Your task to perform on an android device: find which apps use the phone's location Image 0: 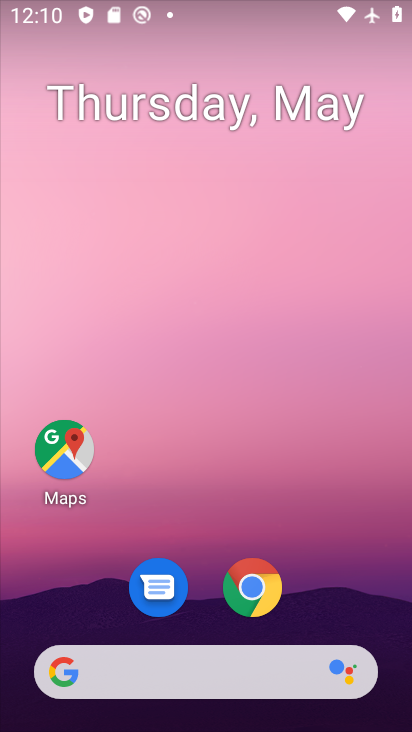
Step 0: press home button
Your task to perform on an android device: find which apps use the phone's location Image 1: 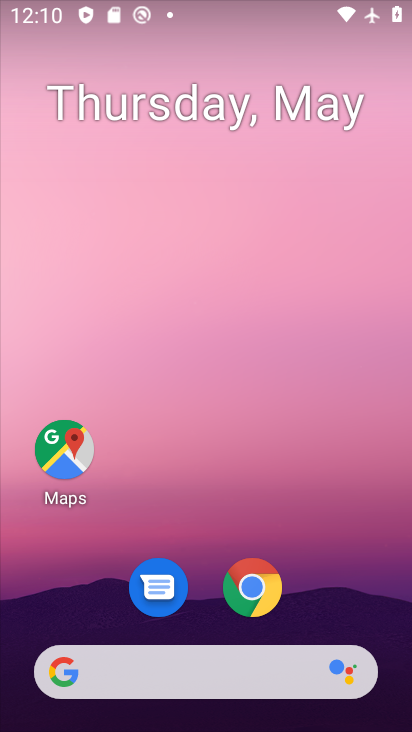
Step 1: drag from (158, 669) to (272, 28)
Your task to perform on an android device: find which apps use the phone's location Image 2: 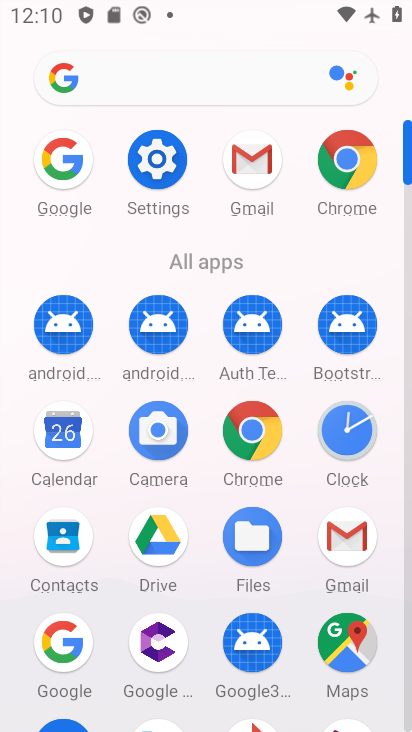
Step 2: click (175, 166)
Your task to perform on an android device: find which apps use the phone's location Image 3: 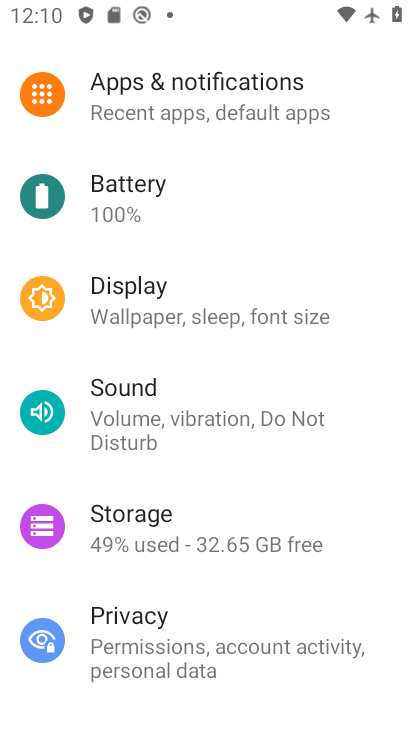
Step 3: click (159, 168)
Your task to perform on an android device: find which apps use the phone's location Image 4: 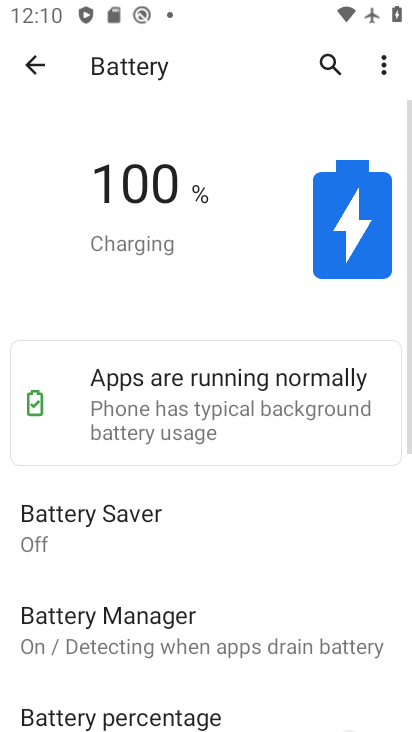
Step 4: drag from (243, 594) to (287, 347)
Your task to perform on an android device: find which apps use the phone's location Image 5: 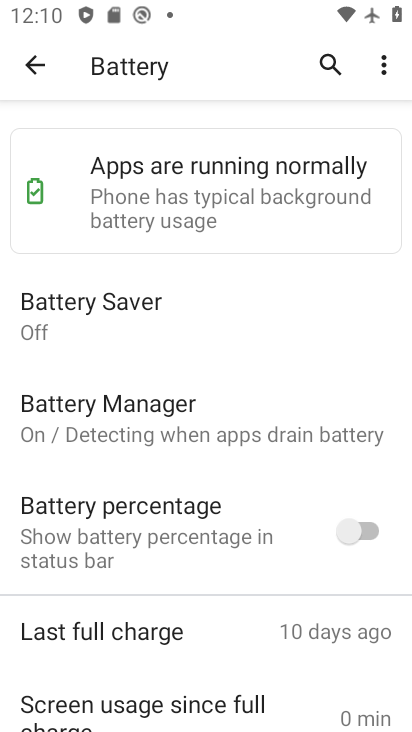
Step 5: press back button
Your task to perform on an android device: find which apps use the phone's location Image 6: 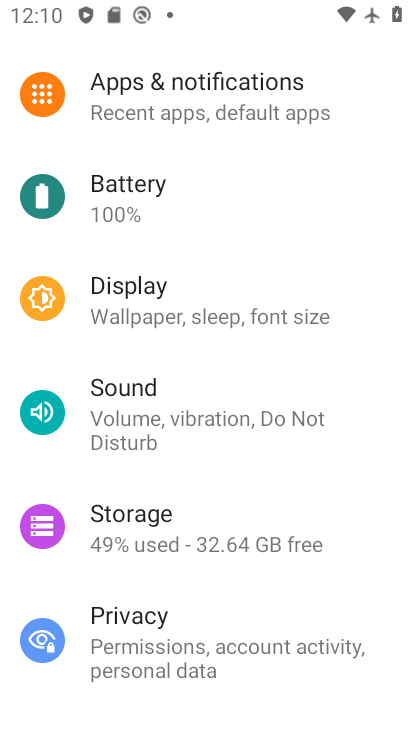
Step 6: drag from (317, 586) to (363, 256)
Your task to perform on an android device: find which apps use the phone's location Image 7: 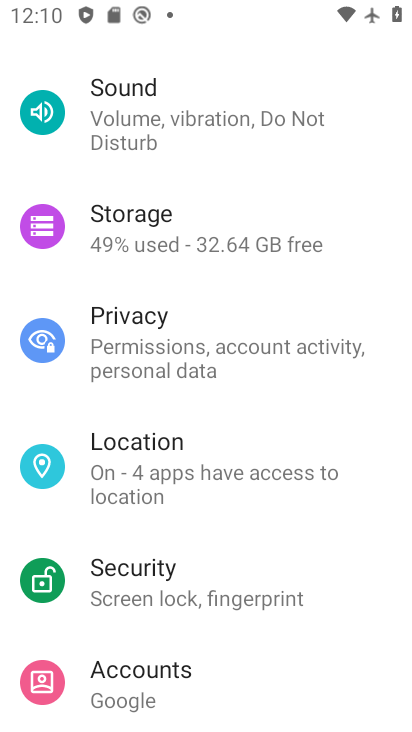
Step 7: click (285, 479)
Your task to perform on an android device: find which apps use the phone's location Image 8: 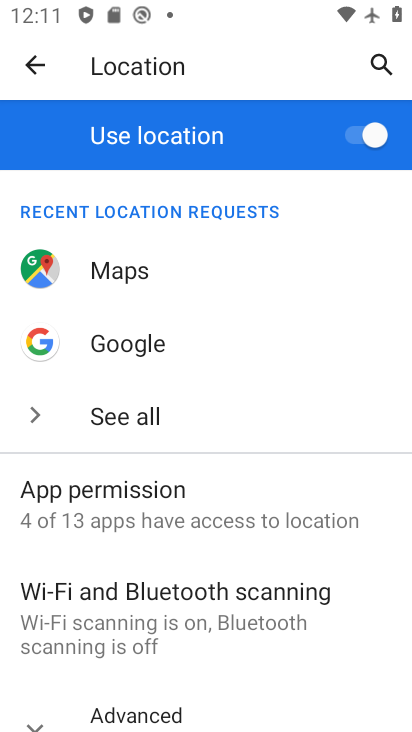
Step 8: task complete